Your task to perform on an android device: Open Android settings Image 0: 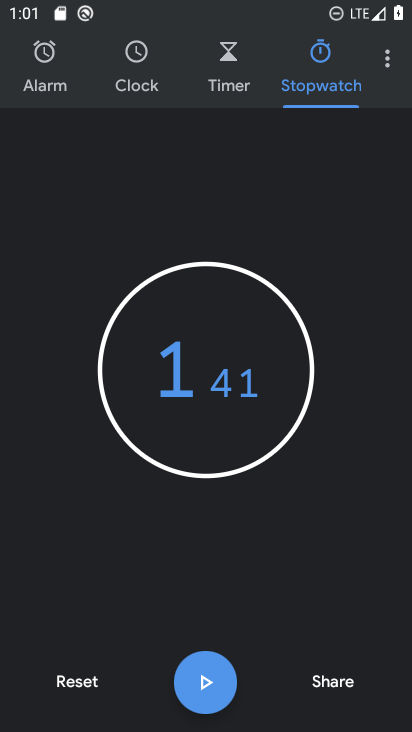
Step 0: press home button
Your task to perform on an android device: Open Android settings Image 1: 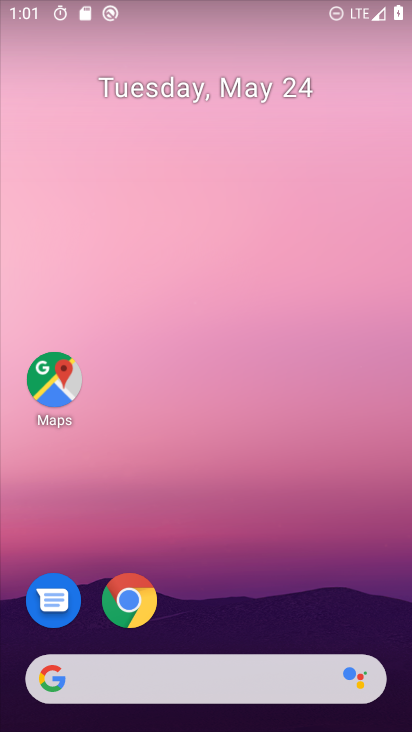
Step 1: drag from (282, 639) to (277, 160)
Your task to perform on an android device: Open Android settings Image 2: 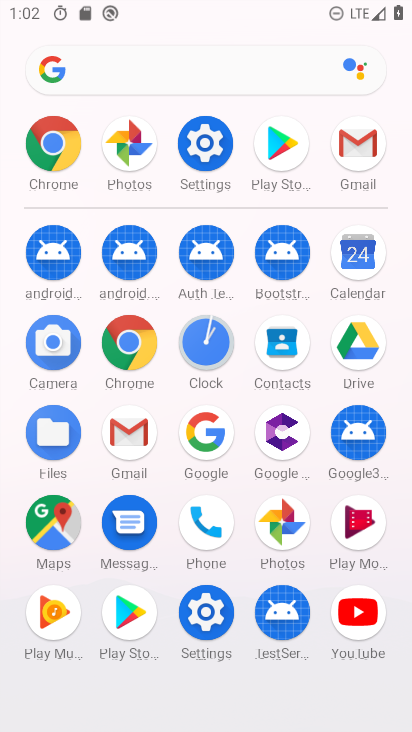
Step 2: click (210, 149)
Your task to perform on an android device: Open Android settings Image 3: 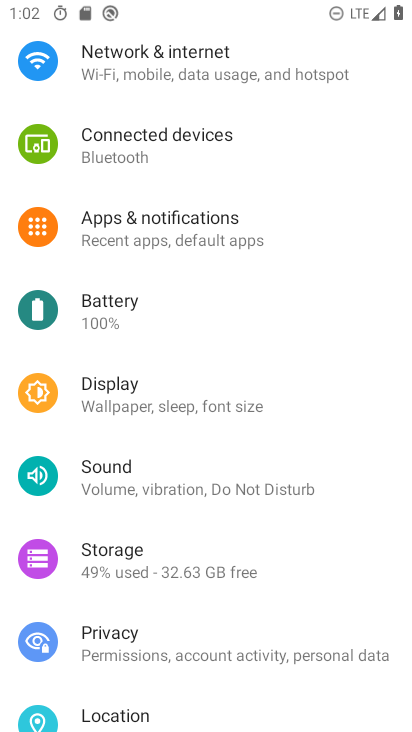
Step 3: task complete